Your task to perform on an android device: toggle location history Image 0: 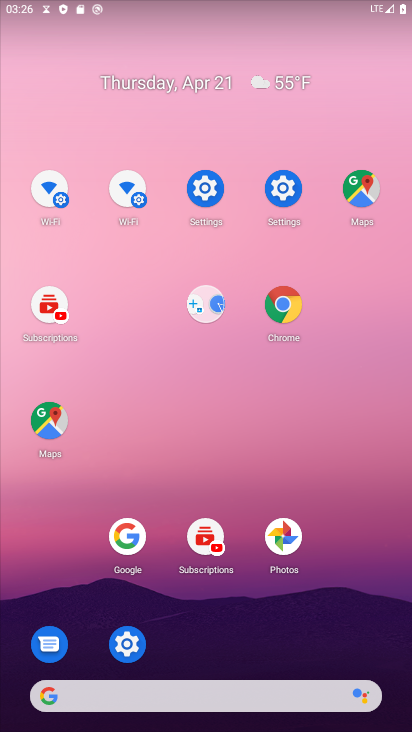
Step 0: drag from (271, 647) to (78, 32)
Your task to perform on an android device: toggle location history Image 1: 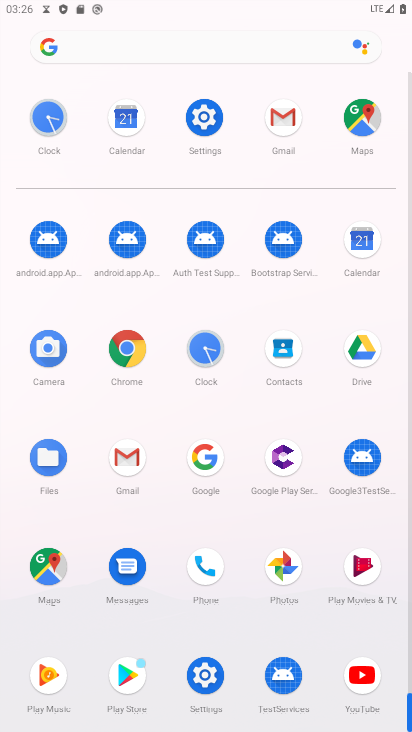
Step 1: click (353, 124)
Your task to perform on an android device: toggle location history Image 2: 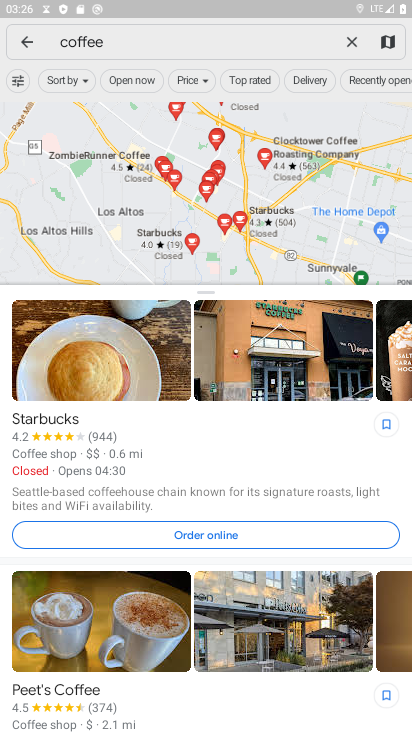
Step 2: click (26, 41)
Your task to perform on an android device: toggle location history Image 3: 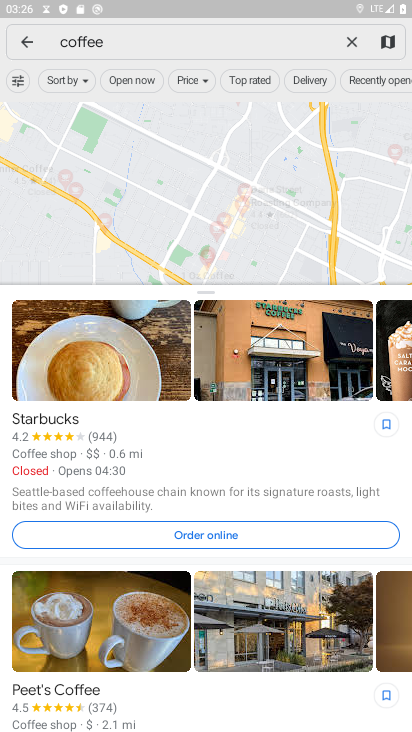
Step 3: click (26, 41)
Your task to perform on an android device: toggle location history Image 4: 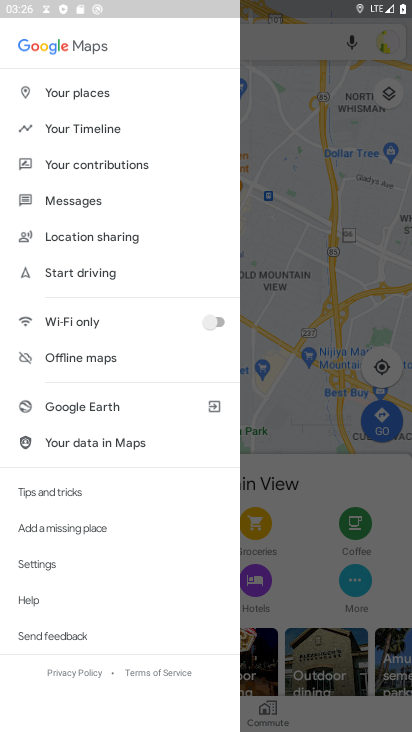
Step 4: click (23, 34)
Your task to perform on an android device: toggle location history Image 5: 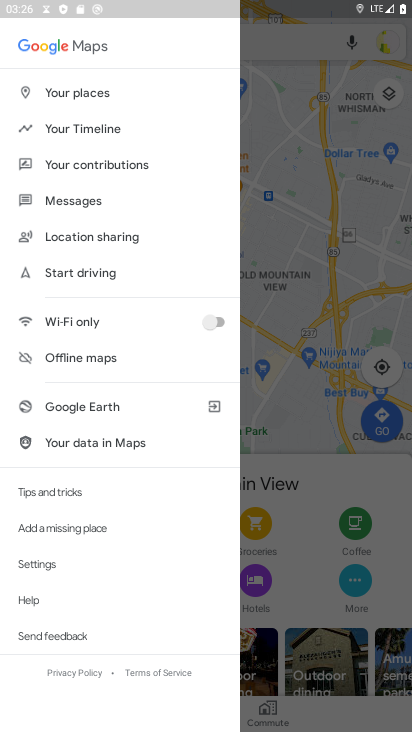
Step 5: click (91, 133)
Your task to perform on an android device: toggle location history Image 6: 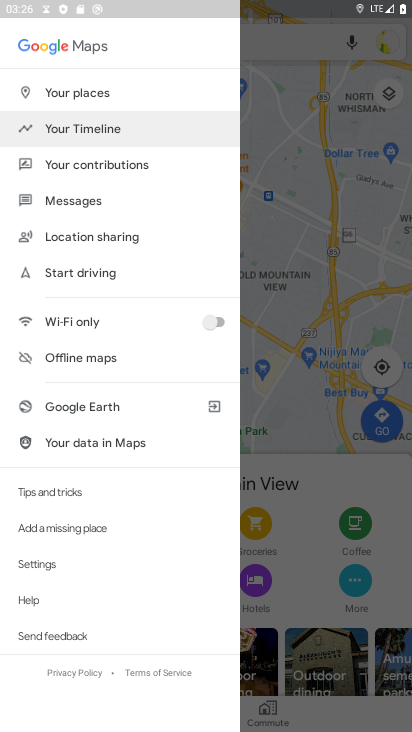
Step 6: click (91, 133)
Your task to perform on an android device: toggle location history Image 7: 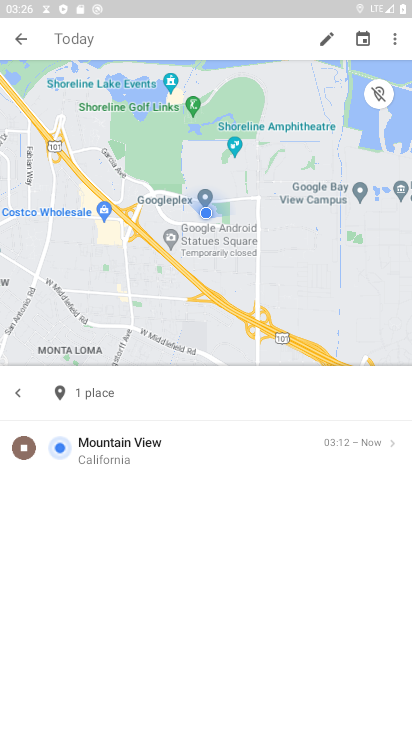
Step 7: drag from (387, 34) to (292, 270)
Your task to perform on an android device: toggle location history Image 8: 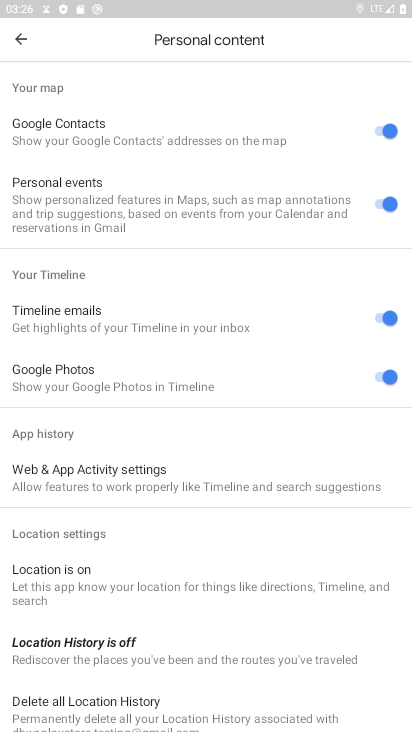
Step 8: click (62, 652)
Your task to perform on an android device: toggle location history Image 9: 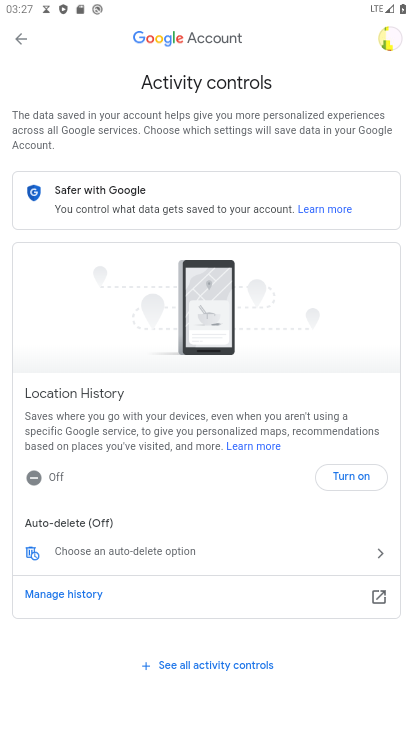
Step 9: click (340, 476)
Your task to perform on an android device: toggle location history Image 10: 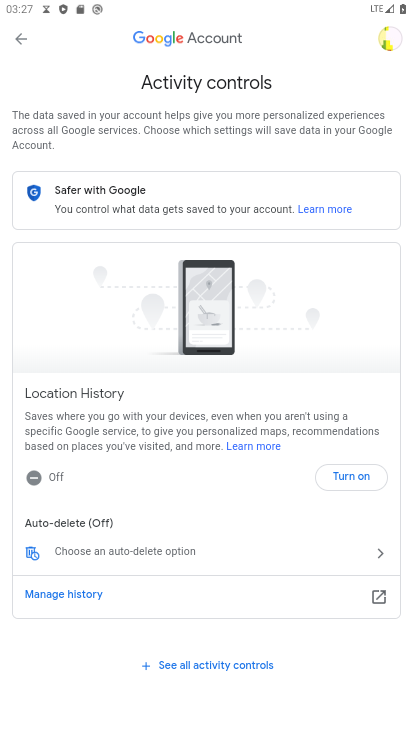
Step 10: click (340, 476)
Your task to perform on an android device: toggle location history Image 11: 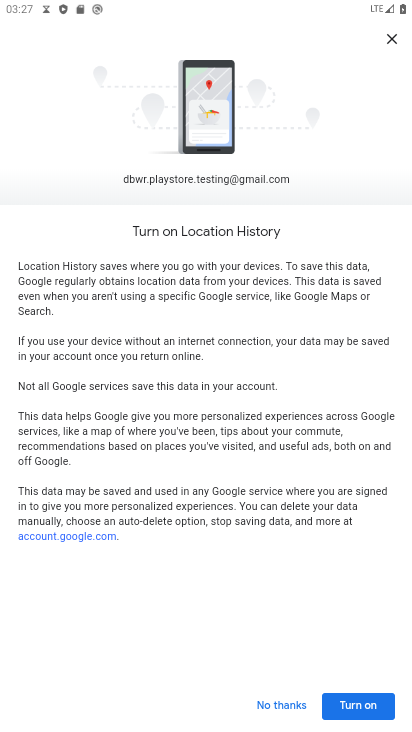
Step 11: task complete